Your task to perform on an android device: check android version Image 0: 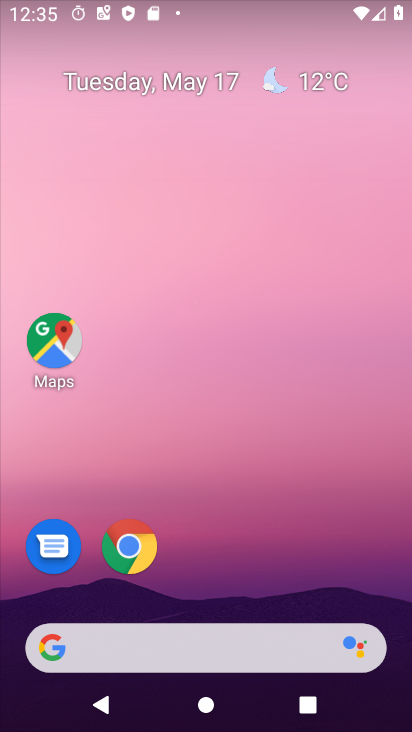
Step 0: drag from (173, 641) to (261, 355)
Your task to perform on an android device: check android version Image 1: 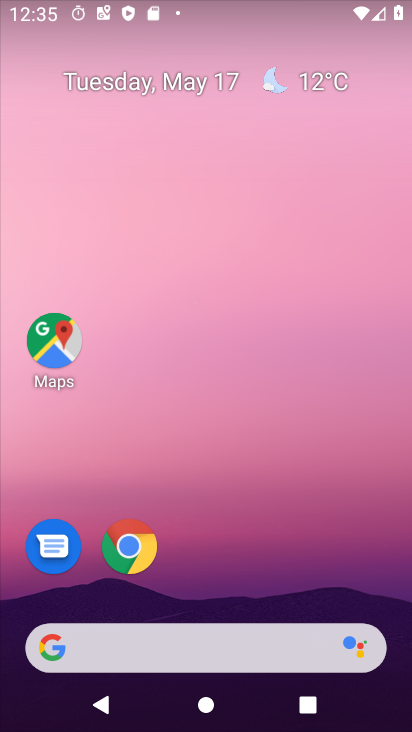
Step 1: drag from (195, 653) to (365, 103)
Your task to perform on an android device: check android version Image 2: 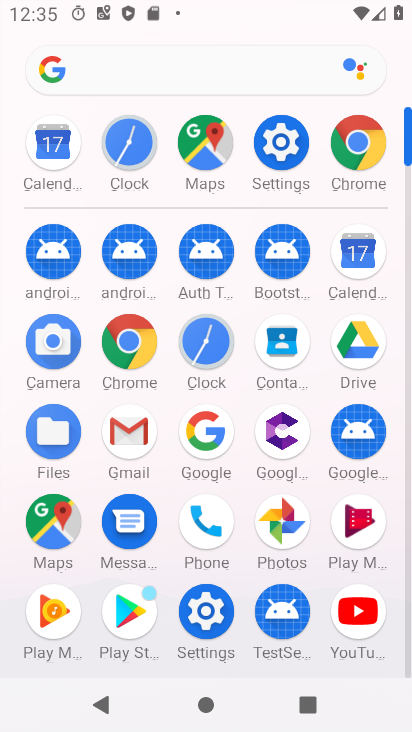
Step 2: click (290, 145)
Your task to perform on an android device: check android version Image 3: 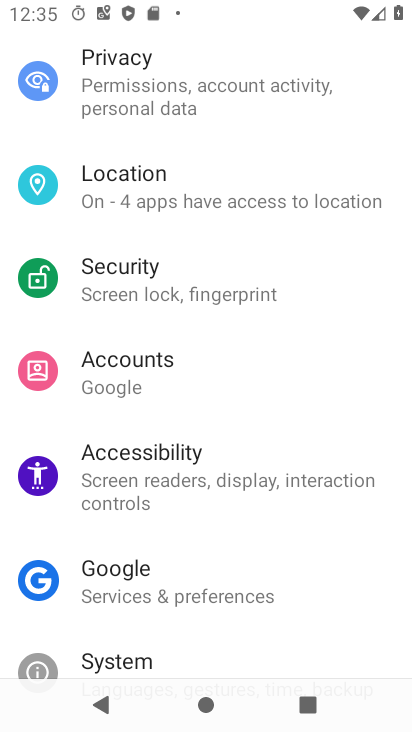
Step 3: drag from (268, 571) to (411, 220)
Your task to perform on an android device: check android version Image 4: 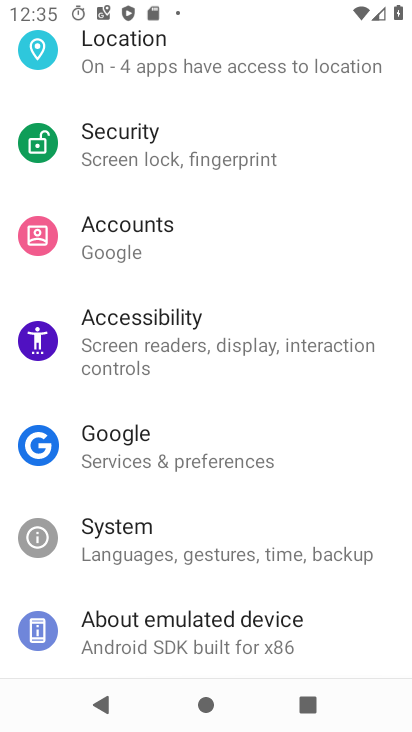
Step 4: drag from (353, 297) to (411, 270)
Your task to perform on an android device: check android version Image 5: 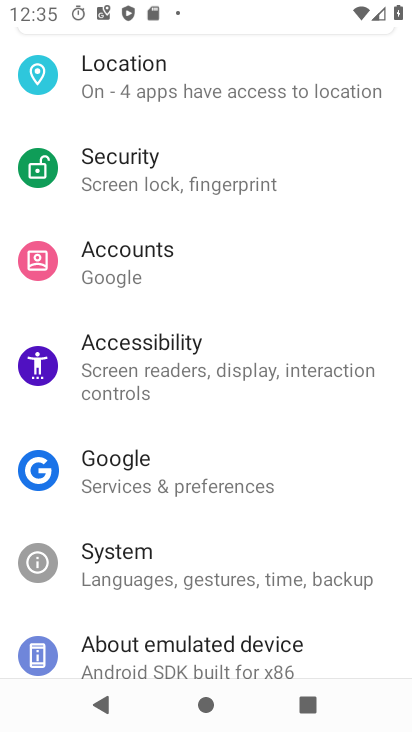
Step 5: drag from (229, 625) to (381, 92)
Your task to perform on an android device: check android version Image 6: 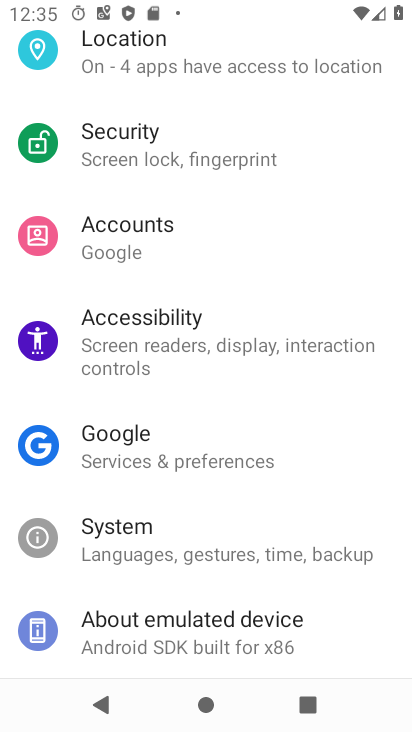
Step 6: drag from (290, 504) to (380, 417)
Your task to perform on an android device: check android version Image 7: 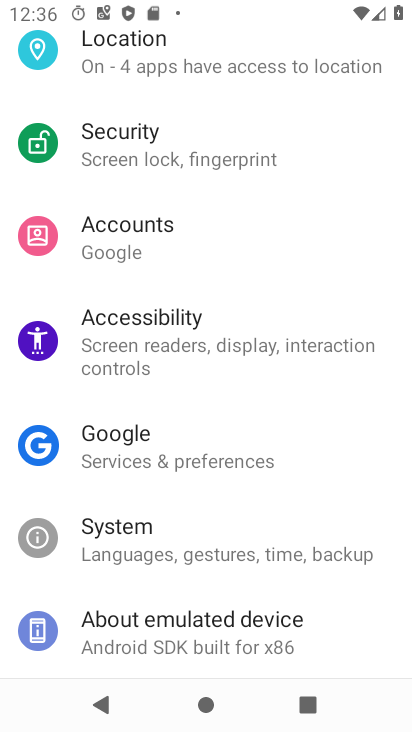
Step 7: click (214, 633)
Your task to perform on an android device: check android version Image 8: 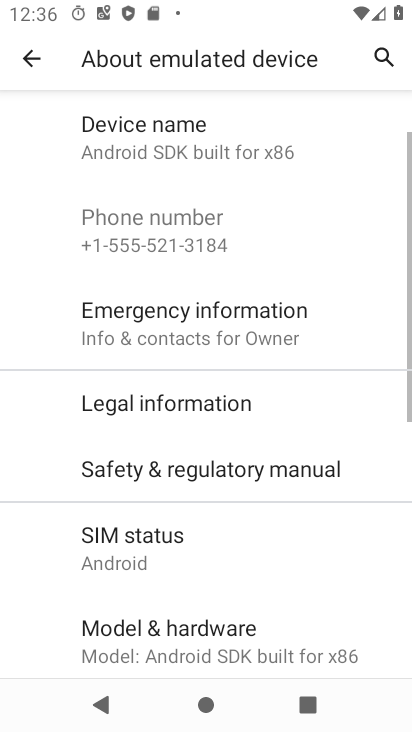
Step 8: drag from (222, 576) to (324, 210)
Your task to perform on an android device: check android version Image 9: 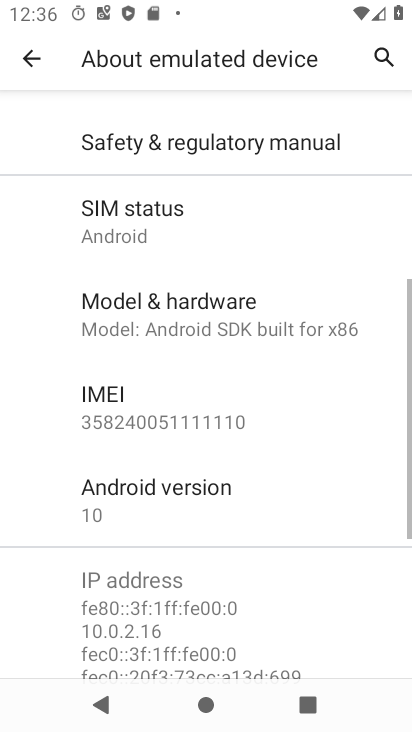
Step 9: click (185, 486)
Your task to perform on an android device: check android version Image 10: 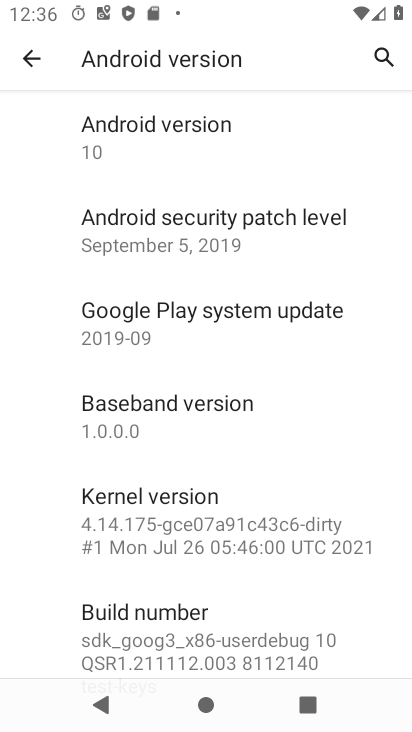
Step 10: task complete